Your task to perform on an android device: open chrome privacy settings Image 0: 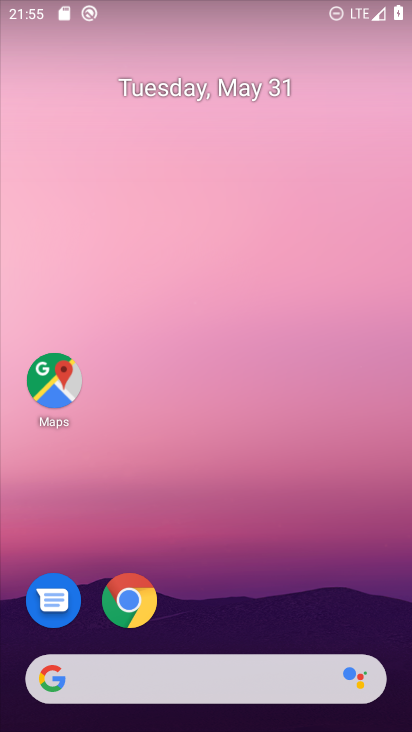
Step 0: drag from (289, 582) to (258, 3)
Your task to perform on an android device: open chrome privacy settings Image 1: 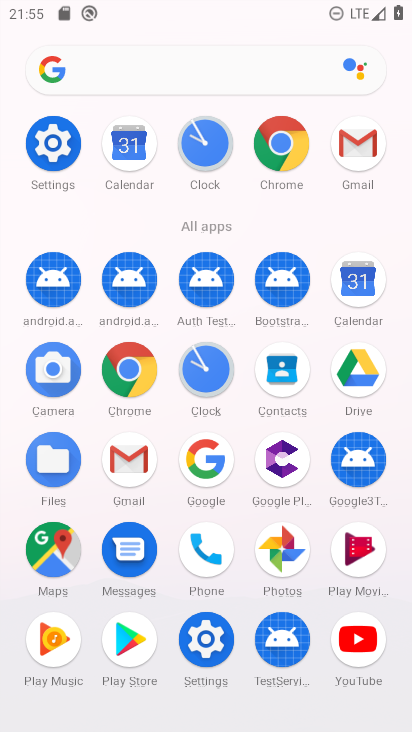
Step 1: click (62, 149)
Your task to perform on an android device: open chrome privacy settings Image 2: 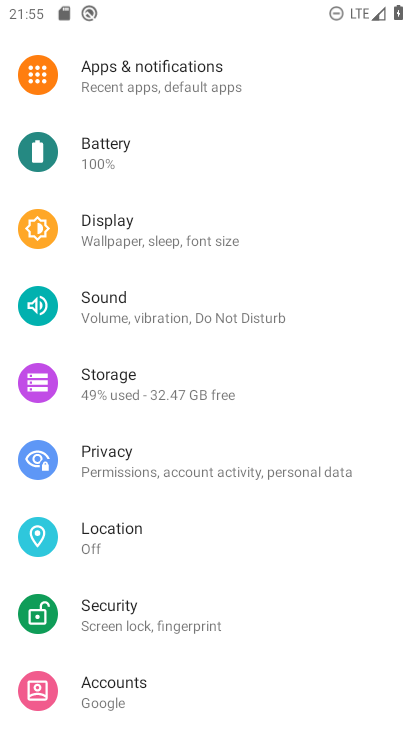
Step 2: click (142, 477)
Your task to perform on an android device: open chrome privacy settings Image 3: 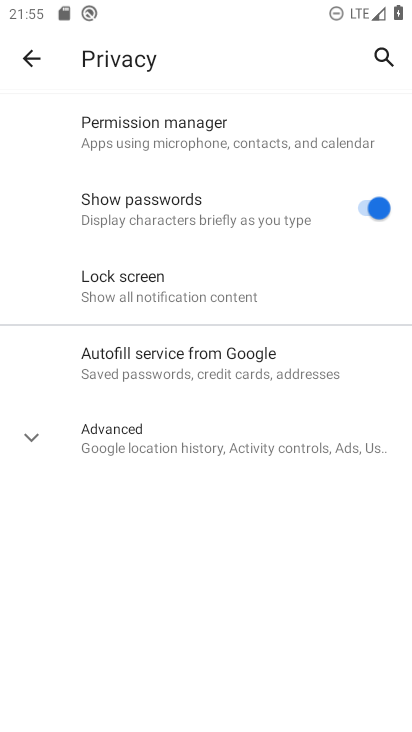
Step 3: task complete